Your task to perform on an android device: Open the web browser Image 0: 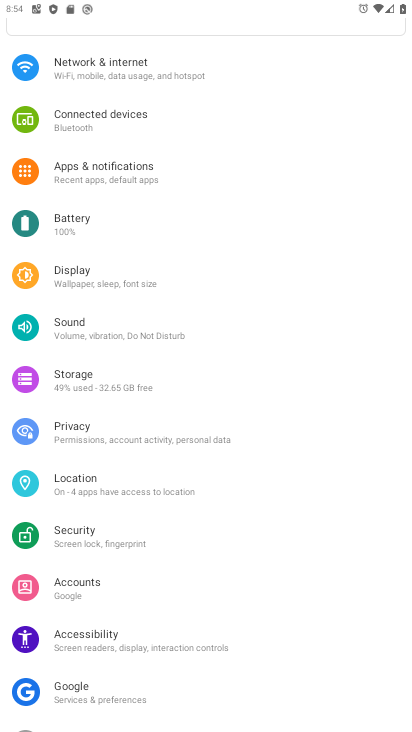
Step 0: press home button
Your task to perform on an android device: Open the web browser Image 1: 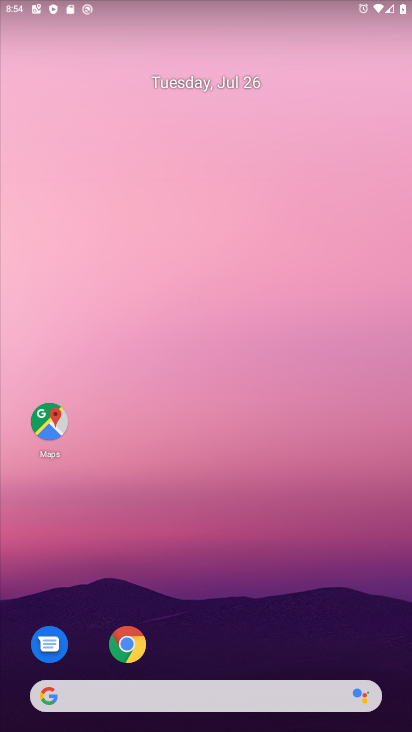
Step 1: click (134, 652)
Your task to perform on an android device: Open the web browser Image 2: 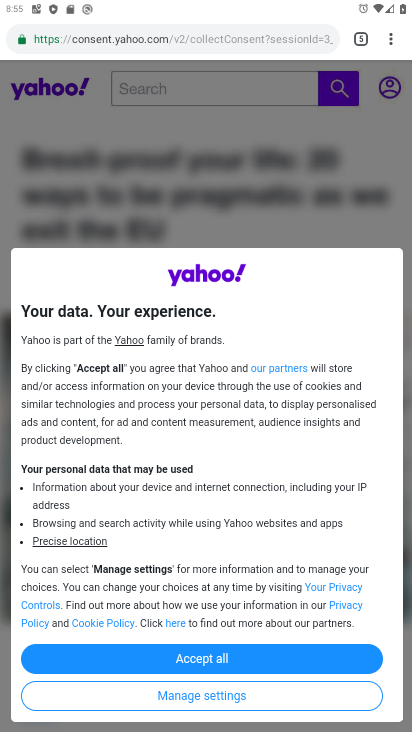
Step 2: task complete